Your task to perform on an android device: What is the news today? Image 0: 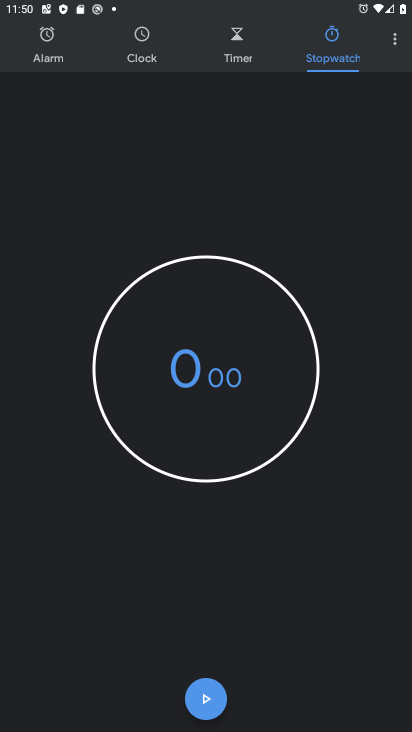
Step 0: press home button
Your task to perform on an android device: What is the news today? Image 1: 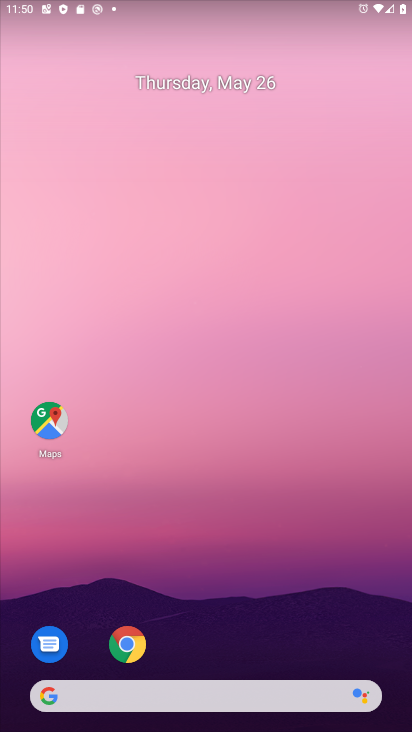
Step 1: drag from (192, 634) to (224, 227)
Your task to perform on an android device: What is the news today? Image 2: 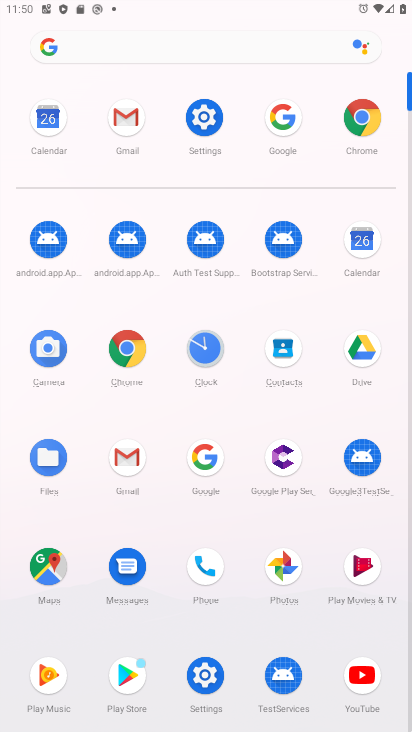
Step 2: click (219, 458)
Your task to perform on an android device: What is the news today? Image 3: 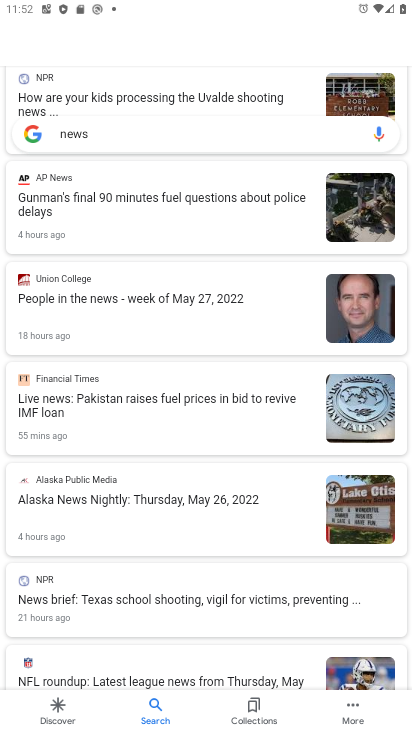
Step 3: press home button
Your task to perform on an android device: What is the news today? Image 4: 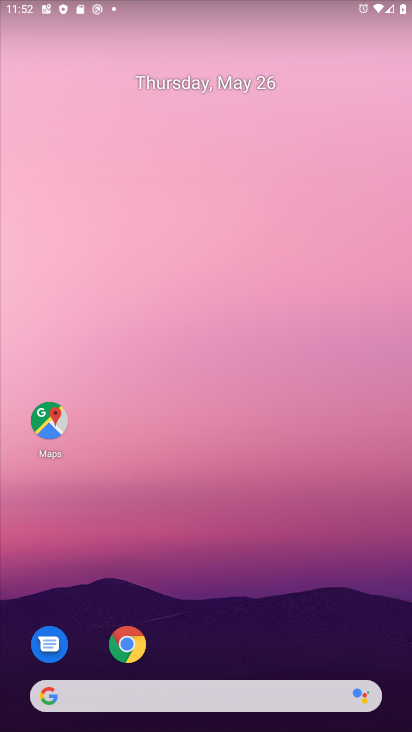
Step 4: drag from (202, 641) to (208, 182)
Your task to perform on an android device: What is the news today? Image 5: 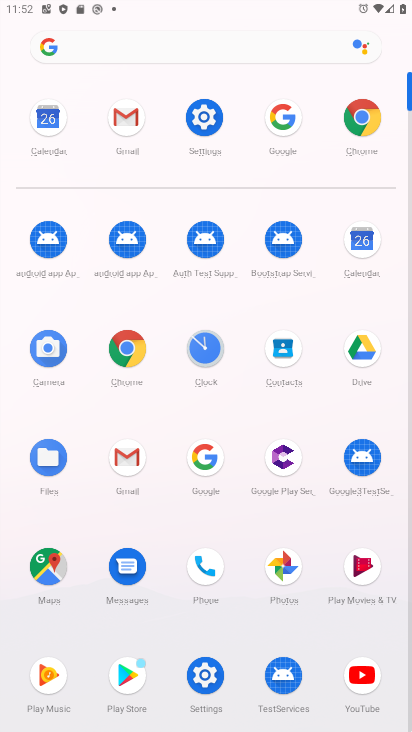
Step 5: click (191, 457)
Your task to perform on an android device: What is the news today? Image 6: 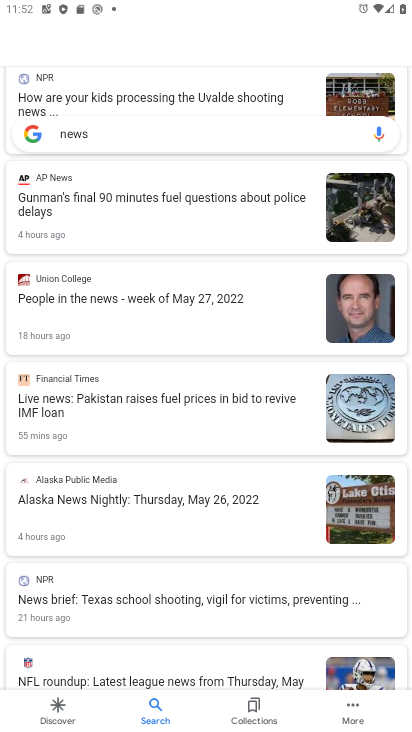
Step 6: drag from (86, 145) to (156, 507)
Your task to perform on an android device: What is the news today? Image 7: 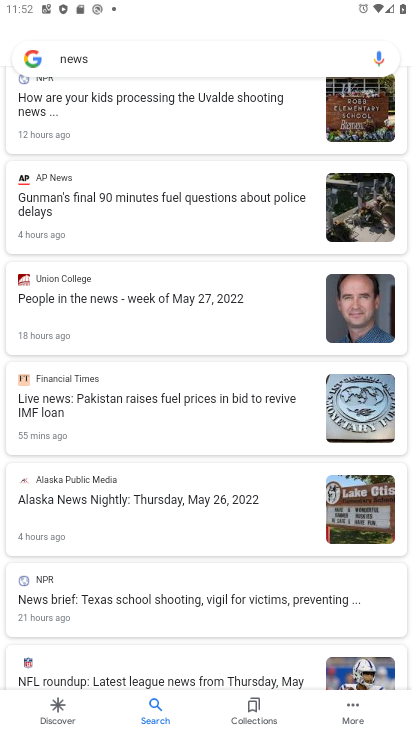
Step 7: drag from (170, 222) to (198, 537)
Your task to perform on an android device: What is the news today? Image 8: 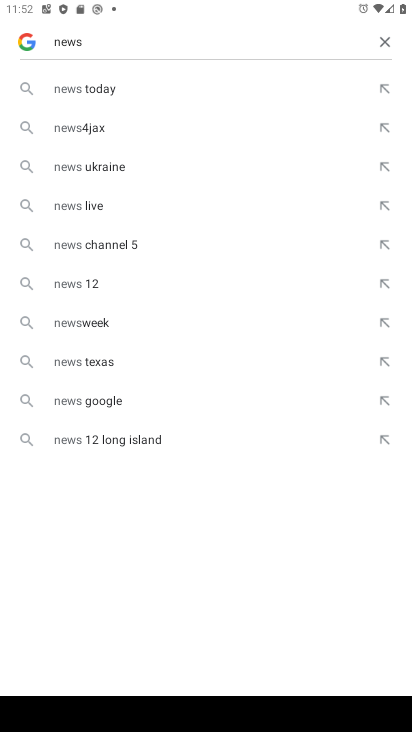
Step 8: drag from (194, 267) to (212, 485)
Your task to perform on an android device: What is the news today? Image 9: 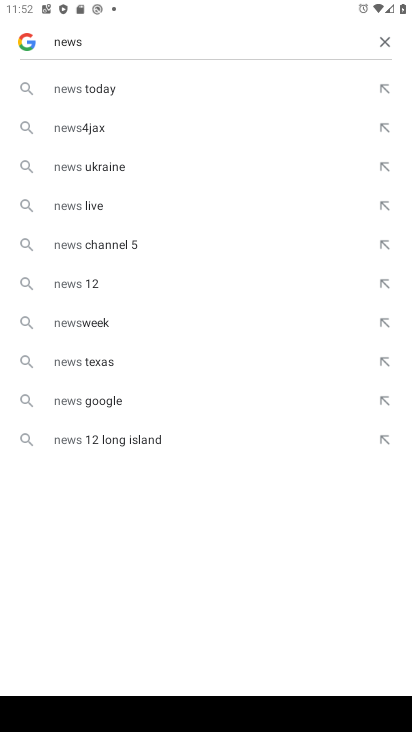
Step 9: click (75, 77)
Your task to perform on an android device: What is the news today? Image 10: 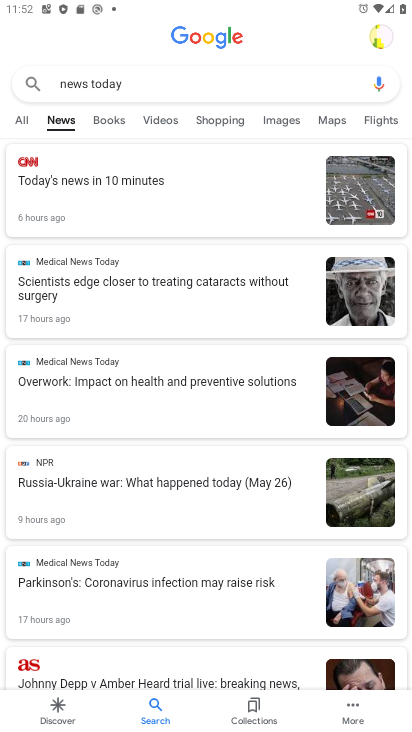
Step 10: task complete